Your task to perform on an android device: See recent photos Image 0: 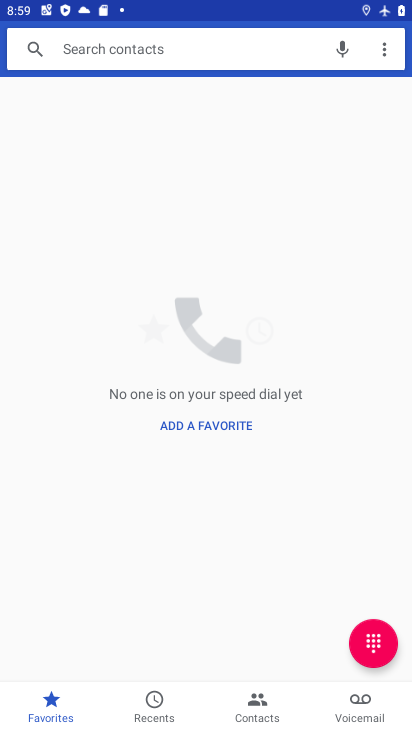
Step 0: press home button
Your task to perform on an android device: See recent photos Image 1: 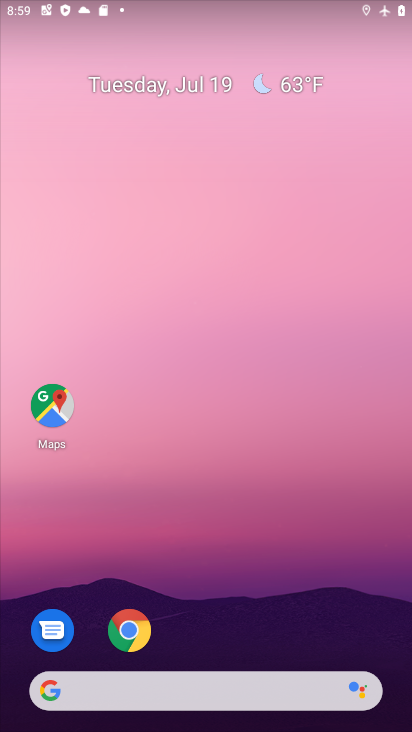
Step 1: drag from (213, 691) to (218, 352)
Your task to perform on an android device: See recent photos Image 2: 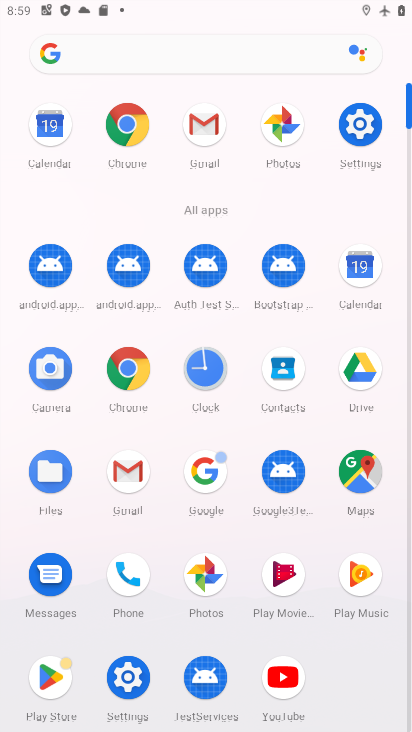
Step 2: click (283, 123)
Your task to perform on an android device: See recent photos Image 3: 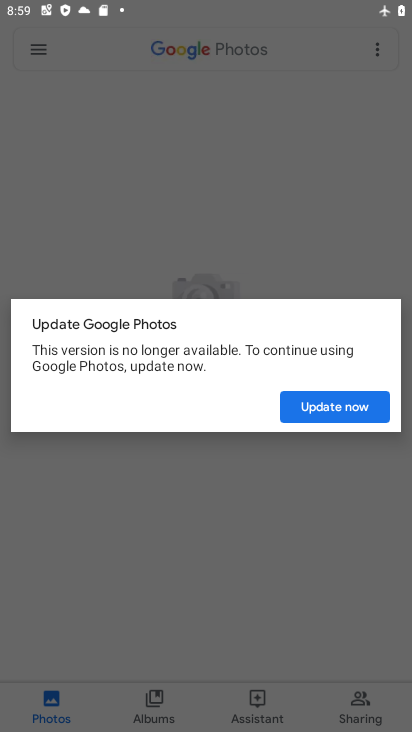
Step 3: click (326, 412)
Your task to perform on an android device: See recent photos Image 4: 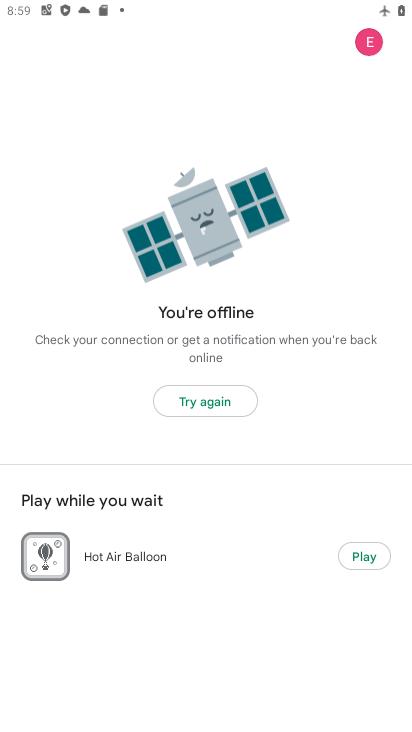
Step 4: press home button
Your task to perform on an android device: See recent photos Image 5: 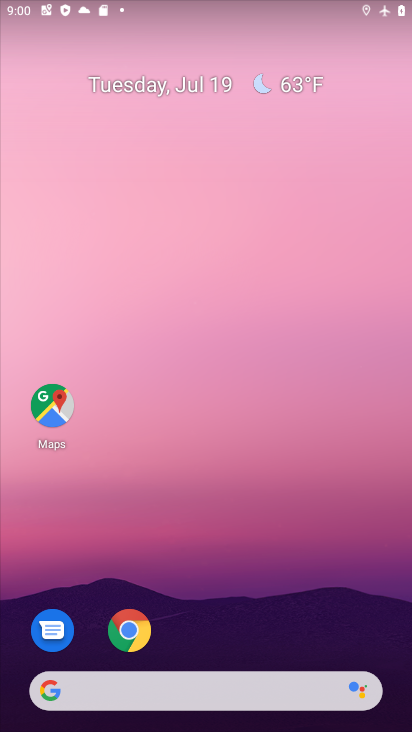
Step 5: drag from (162, 693) to (143, 129)
Your task to perform on an android device: See recent photos Image 6: 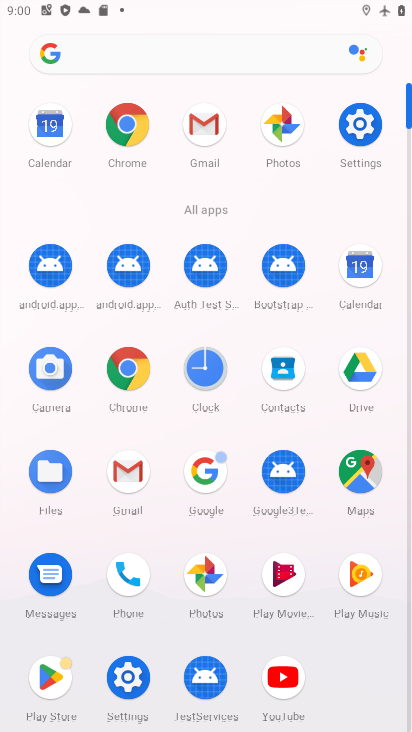
Step 6: click (363, 122)
Your task to perform on an android device: See recent photos Image 7: 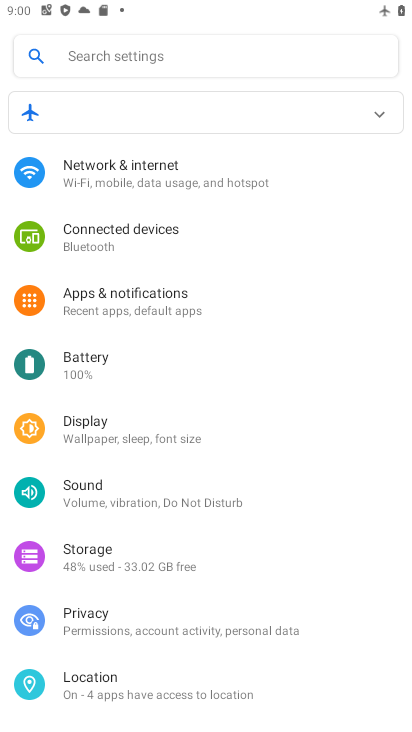
Step 7: click (163, 179)
Your task to perform on an android device: See recent photos Image 8: 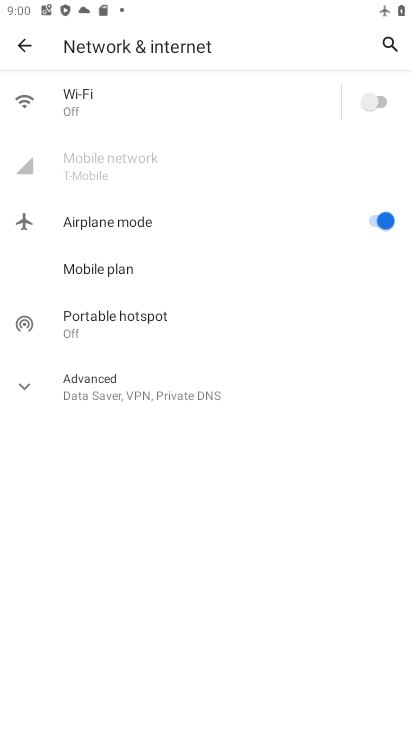
Step 8: click (381, 225)
Your task to perform on an android device: See recent photos Image 9: 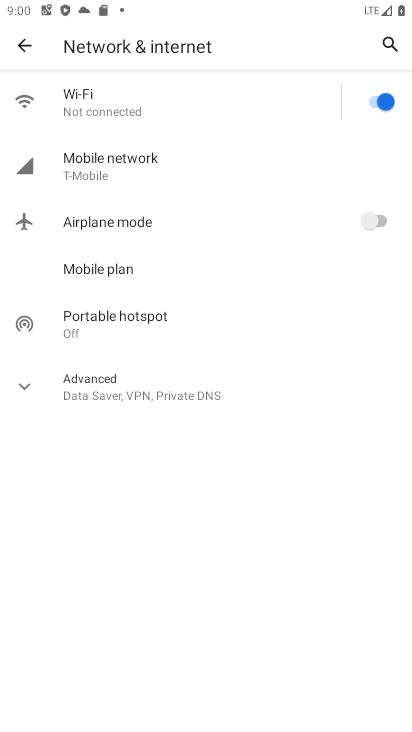
Step 9: press back button
Your task to perform on an android device: See recent photos Image 10: 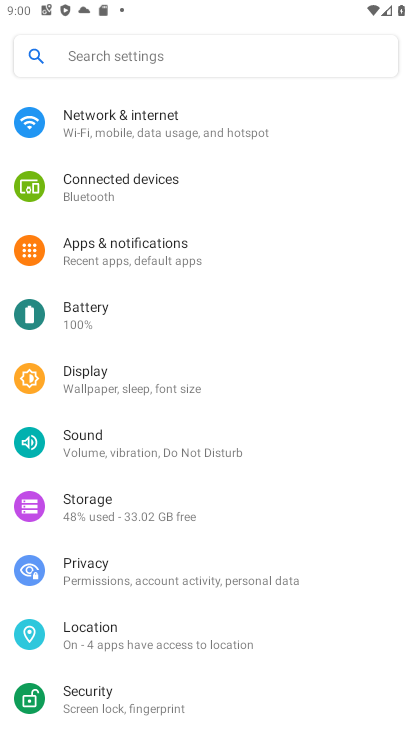
Step 10: press back button
Your task to perform on an android device: See recent photos Image 11: 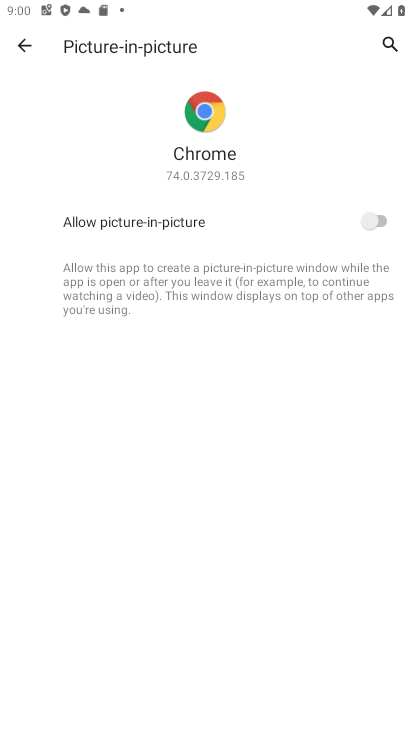
Step 11: press back button
Your task to perform on an android device: See recent photos Image 12: 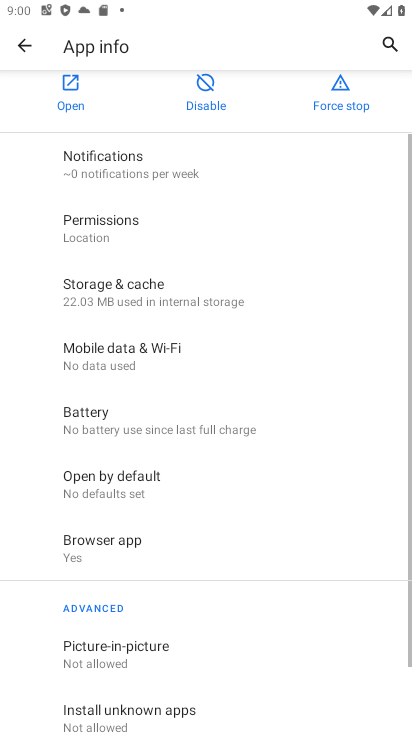
Step 12: press back button
Your task to perform on an android device: See recent photos Image 13: 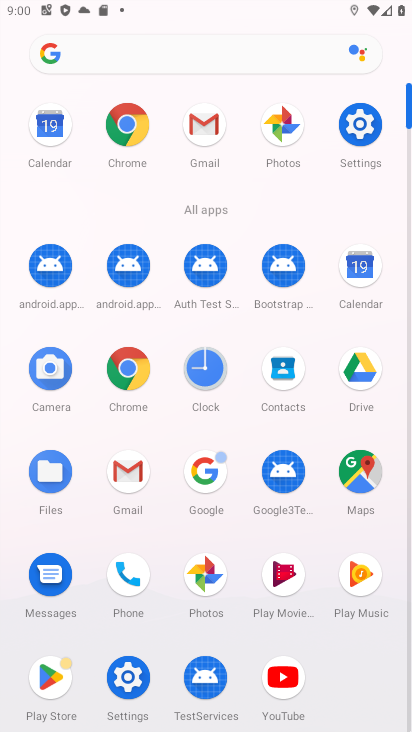
Step 13: click (285, 125)
Your task to perform on an android device: See recent photos Image 14: 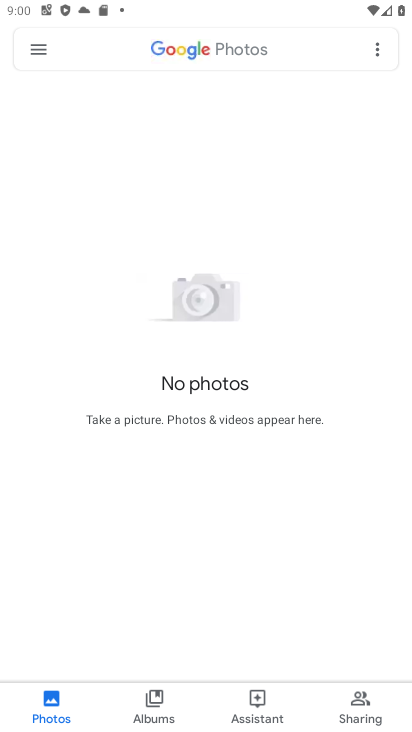
Step 14: click (161, 701)
Your task to perform on an android device: See recent photos Image 15: 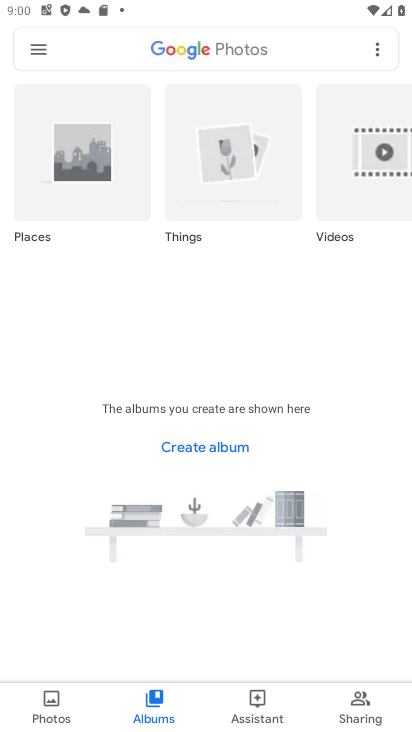
Step 15: click (219, 170)
Your task to perform on an android device: See recent photos Image 16: 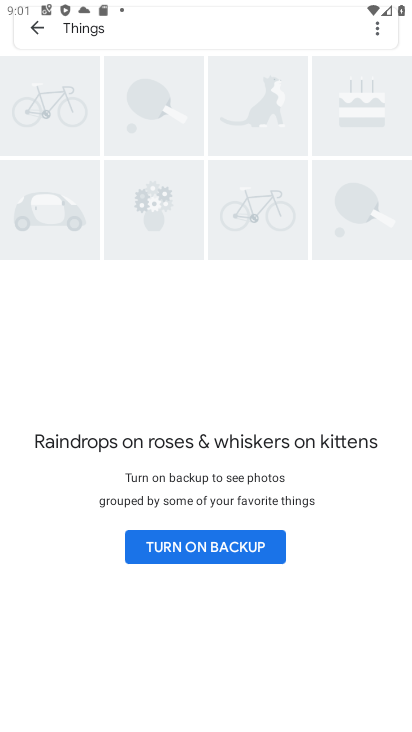
Step 16: press back button
Your task to perform on an android device: See recent photos Image 17: 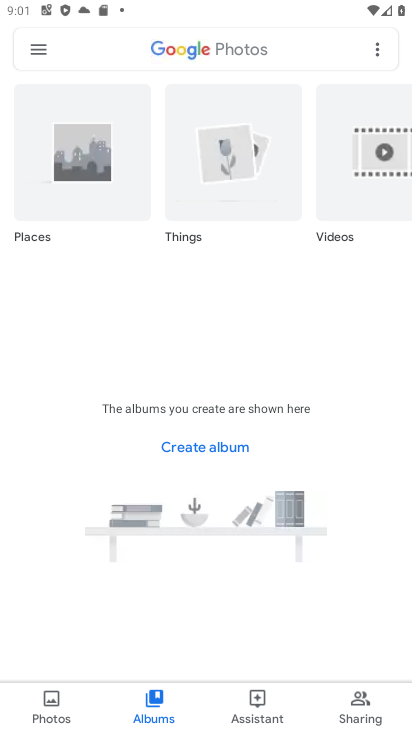
Step 17: click (75, 156)
Your task to perform on an android device: See recent photos Image 18: 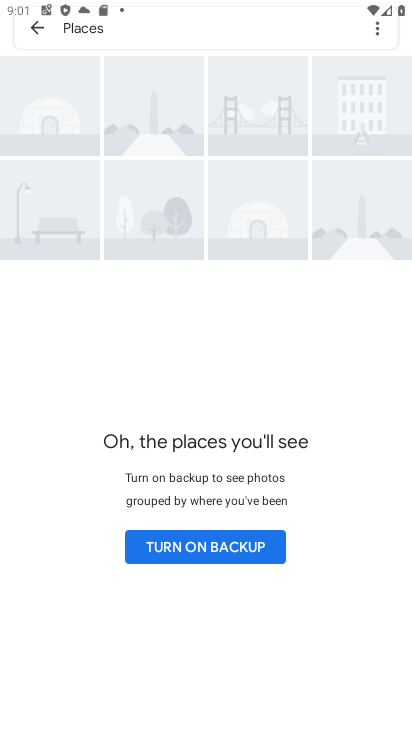
Step 18: click (210, 557)
Your task to perform on an android device: See recent photos Image 19: 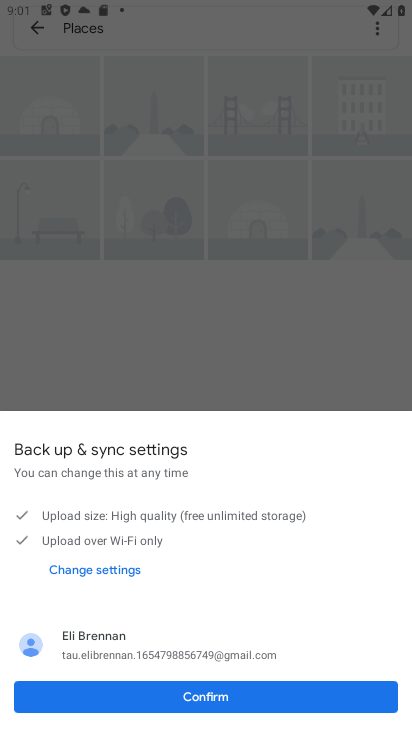
Step 19: click (224, 685)
Your task to perform on an android device: See recent photos Image 20: 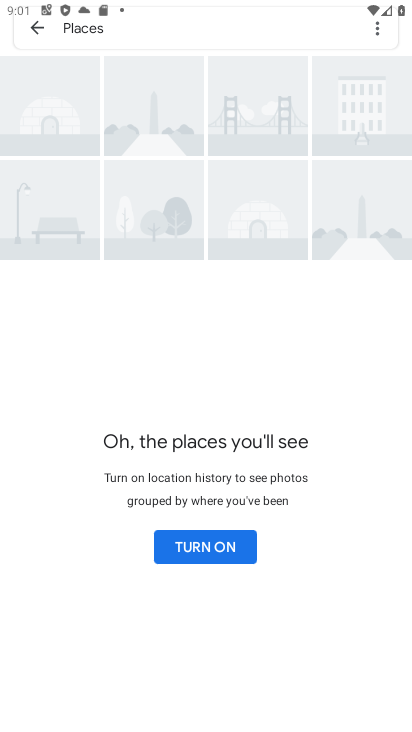
Step 20: click (212, 543)
Your task to perform on an android device: See recent photos Image 21: 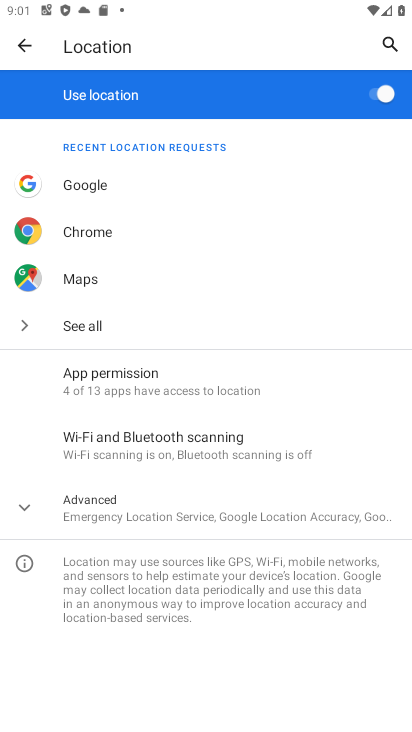
Step 21: press back button
Your task to perform on an android device: See recent photos Image 22: 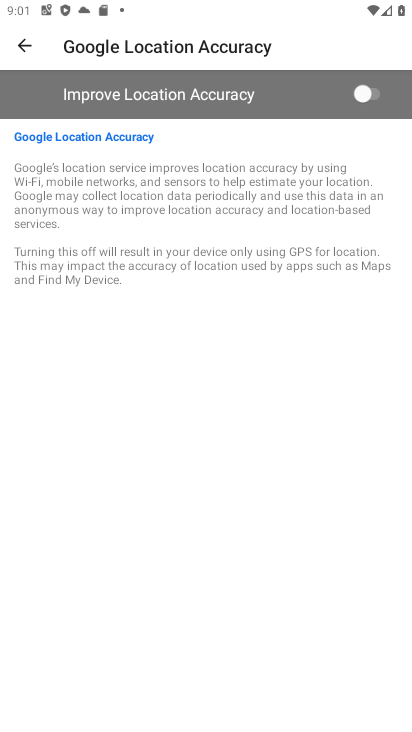
Step 22: press back button
Your task to perform on an android device: See recent photos Image 23: 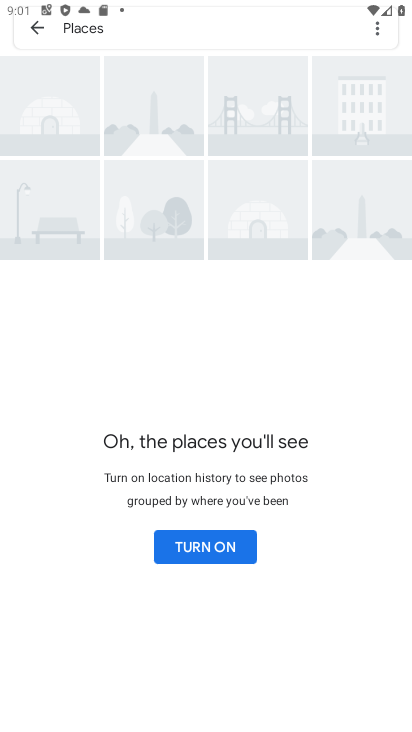
Step 23: click (32, 26)
Your task to perform on an android device: See recent photos Image 24: 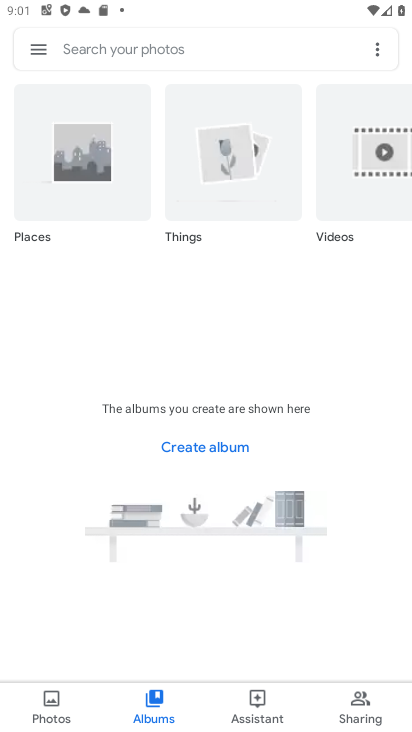
Step 24: drag from (76, 180) to (262, 150)
Your task to perform on an android device: See recent photos Image 25: 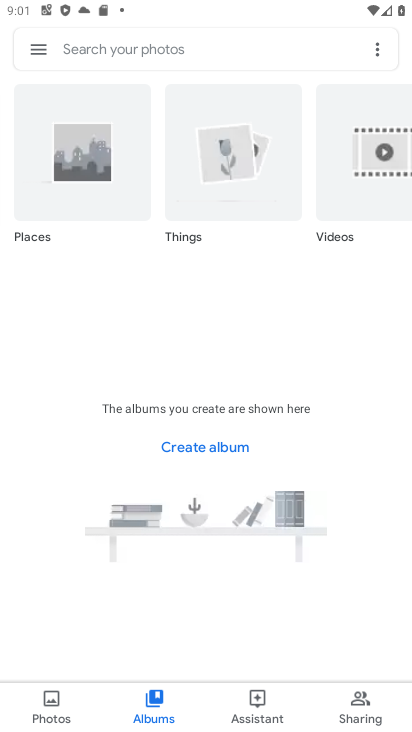
Step 25: drag from (357, 160) to (17, 187)
Your task to perform on an android device: See recent photos Image 26: 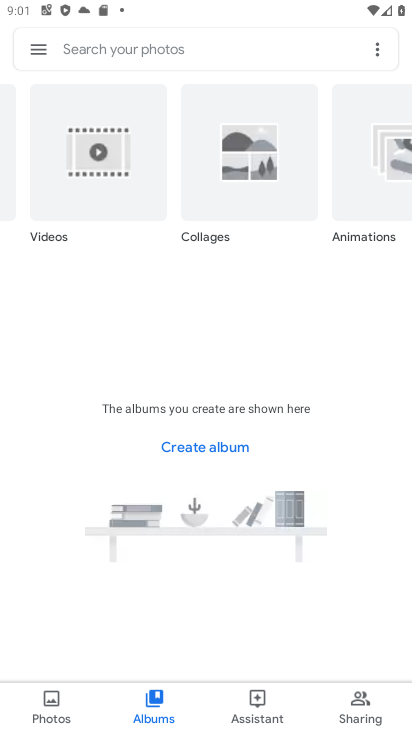
Step 26: click (257, 158)
Your task to perform on an android device: See recent photos Image 27: 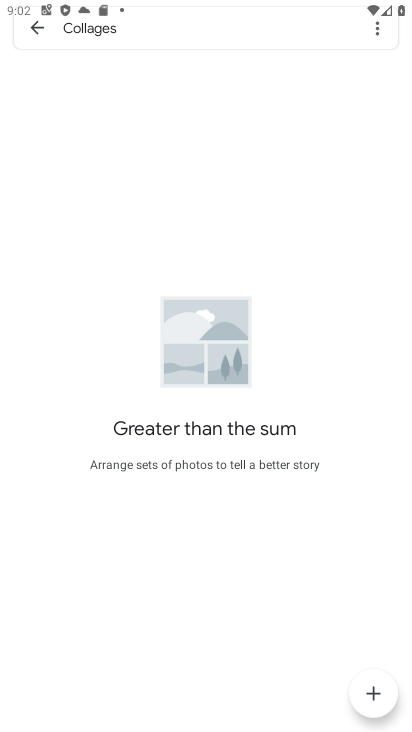
Step 27: task complete